Your task to perform on an android device: change notifications settings Image 0: 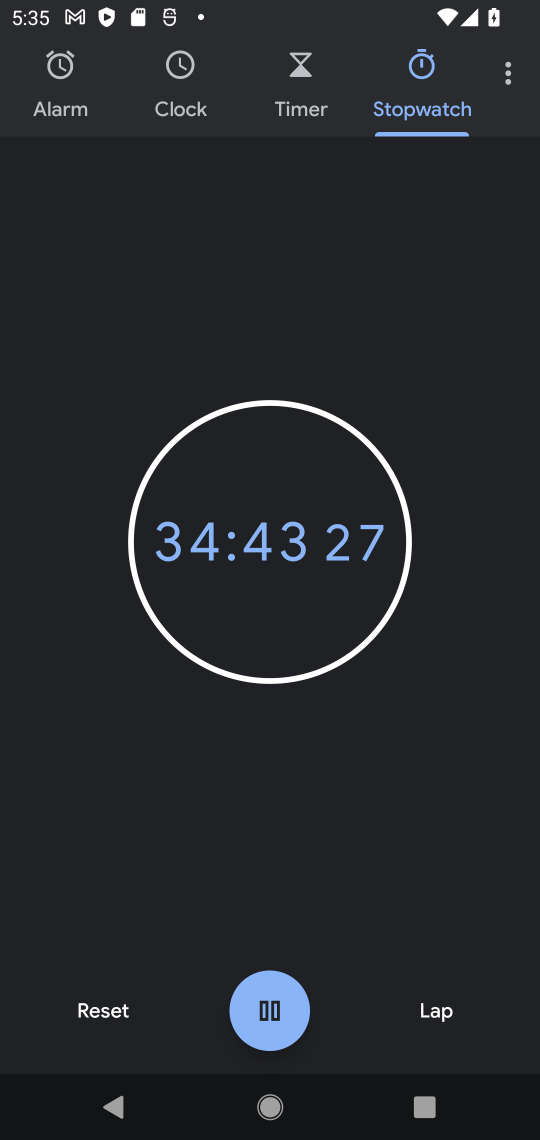
Step 0: press home button
Your task to perform on an android device: change notifications settings Image 1: 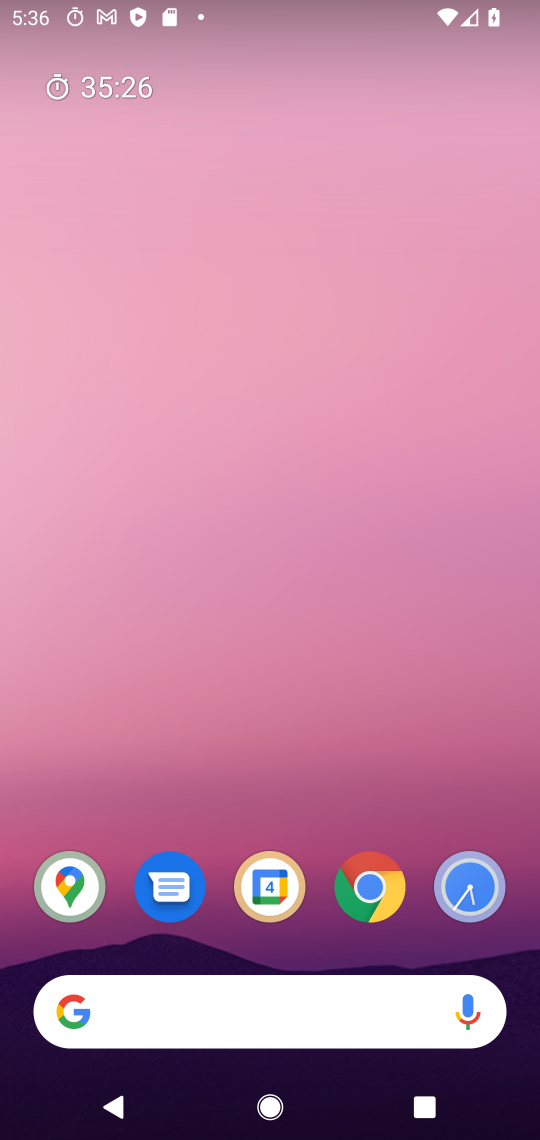
Step 1: drag from (516, 990) to (400, 52)
Your task to perform on an android device: change notifications settings Image 2: 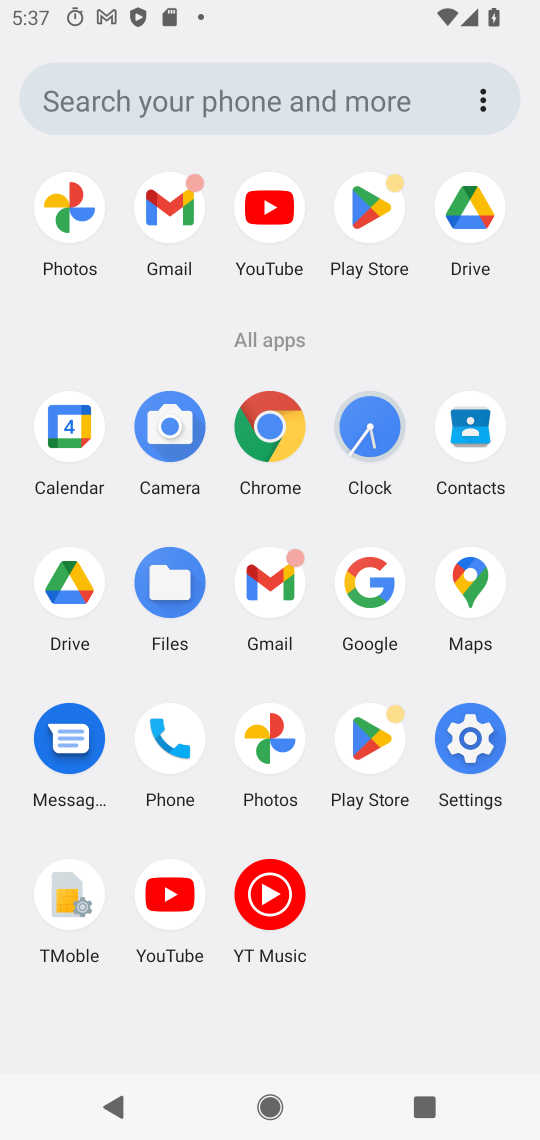
Step 2: click (458, 737)
Your task to perform on an android device: change notifications settings Image 3: 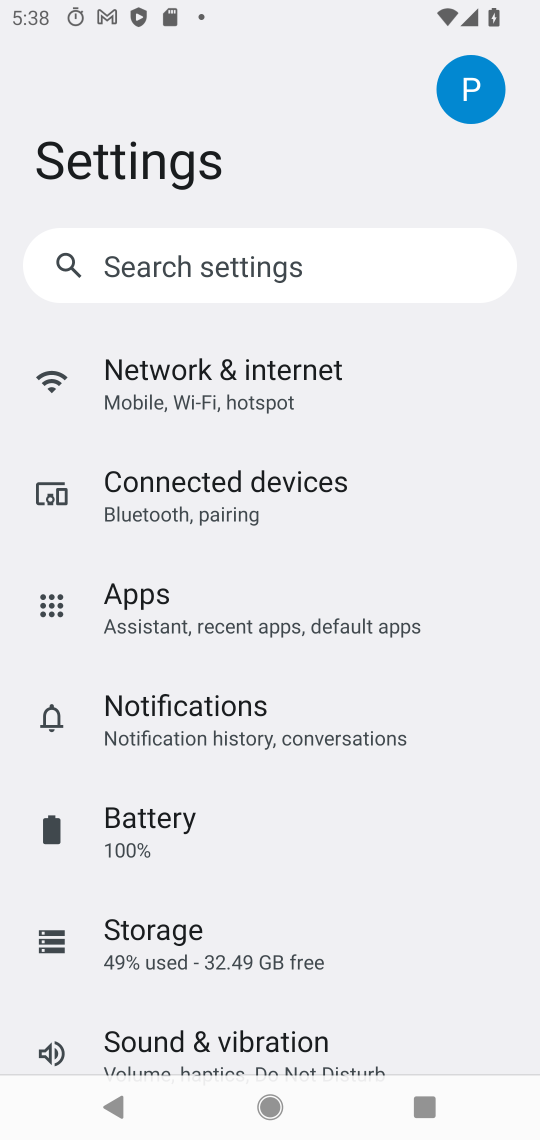
Step 3: click (162, 718)
Your task to perform on an android device: change notifications settings Image 4: 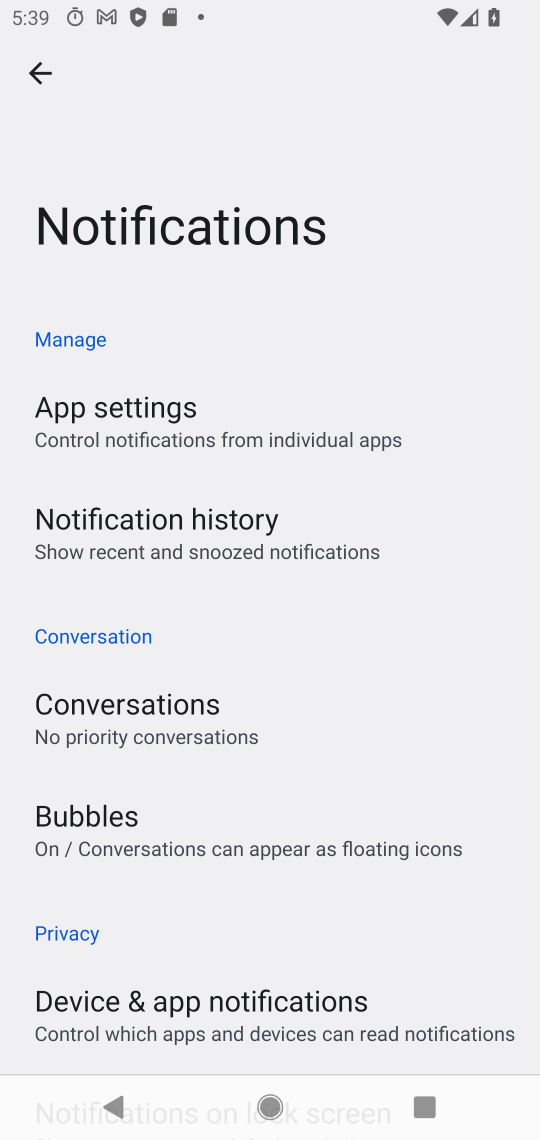
Step 4: task complete